Your task to perform on an android device: Open the phone app and click the voicemail tab. Image 0: 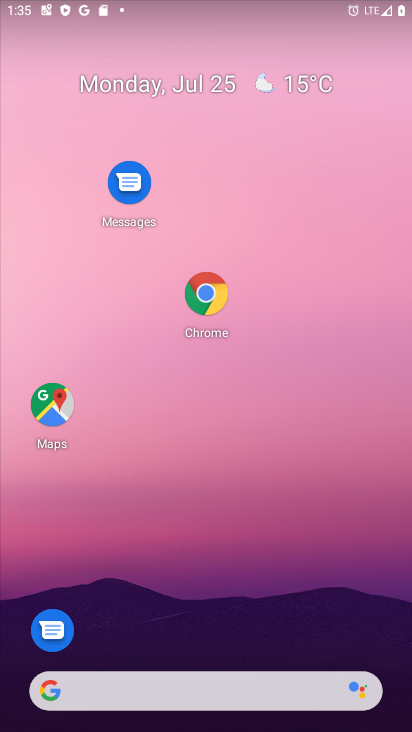
Step 0: press home button
Your task to perform on an android device: Open the phone app and click the voicemail tab. Image 1: 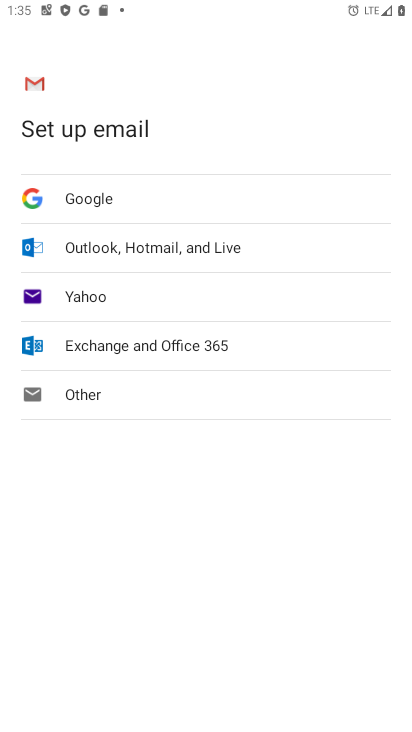
Step 1: drag from (157, 0) to (91, 12)
Your task to perform on an android device: Open the phone app and click the voicemail tab. Image 2: 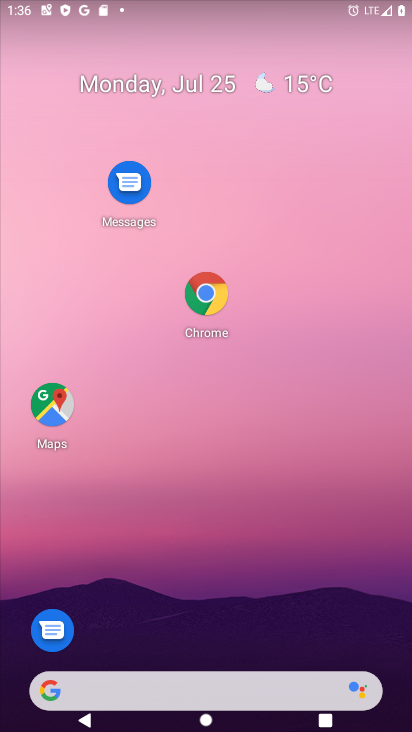
Step 2: drag from (247, 454) to (72, 12)
Your task to perform on an android device: Open the phone app and click the voicemail tab. Image 3: 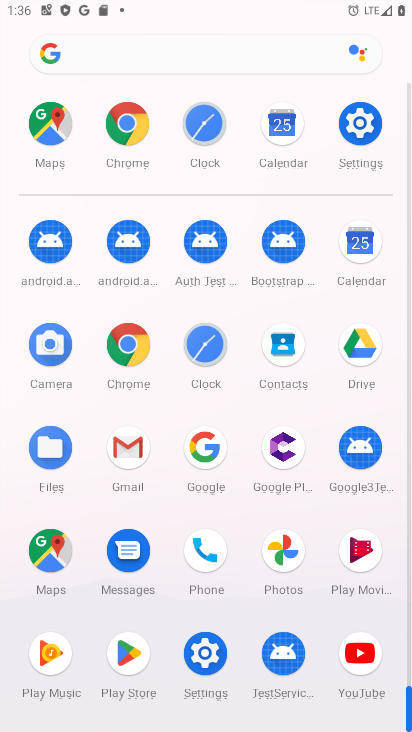
Step 3: click (200, 543)
Your task to perform on an android device: Open the phone app and click the voicemail tab. Image 4: 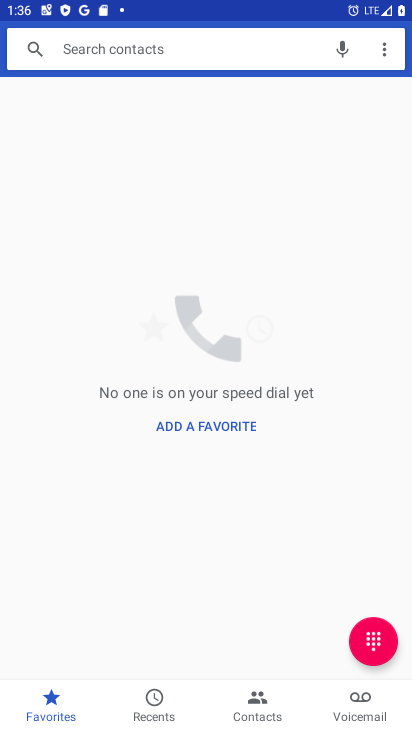
Step 4: click (379, 691)
Your task to perform on an android device: Open the phone app and click the voicemail tab. Image 5: 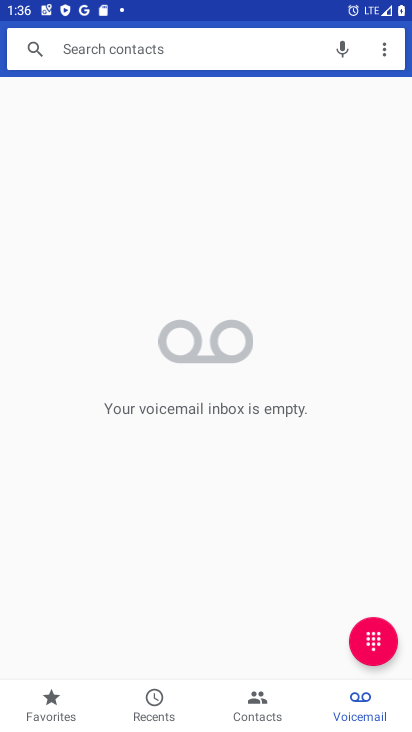
Step 5: task complete